Your task to perform on an android device: Open sound settings Image 0: 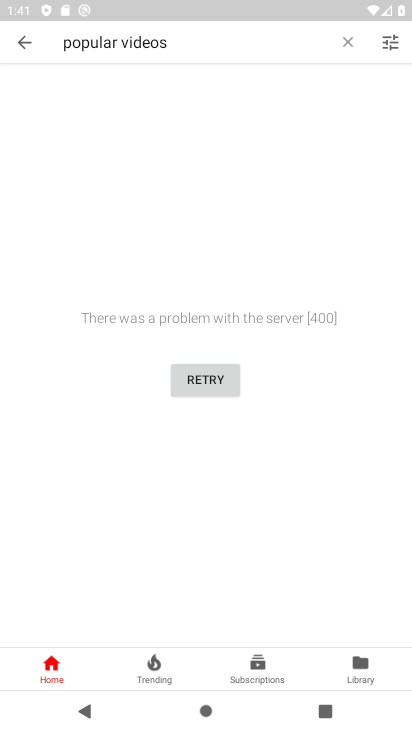
Step 0: press home button
Your task to perform on an android device: Open sound settings Image 1: 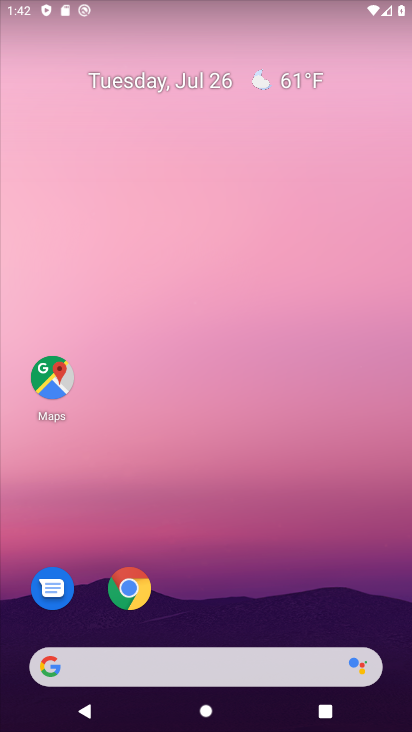
Step 1: drag from (272, 613) to (406, 84)
Your task to perform on an android device: Open sound settings Image 2: 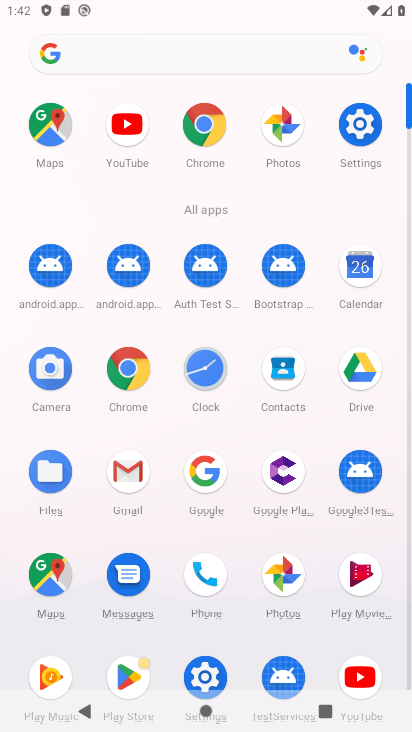
Step 2: click (363, 120)
Your task to perform on an android device: Open sound settings Image 3: 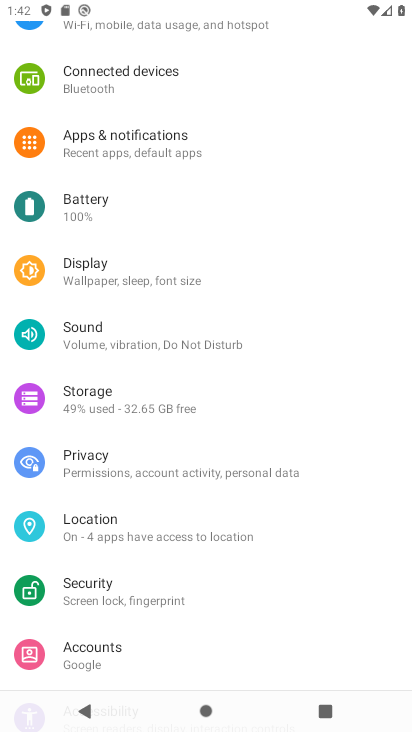
Step 3: click (123, 328)
Your task to perform on an android device: Open sound settings Image 4: 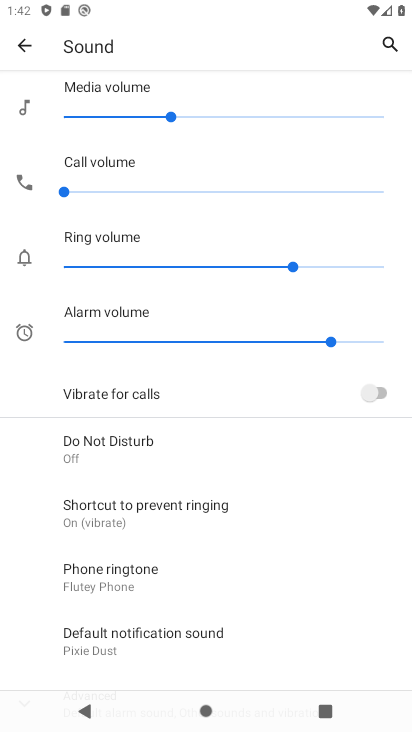
Step 4: task complete